Your task to perform on an android device: toggle javascript in the chrome app Image 0: 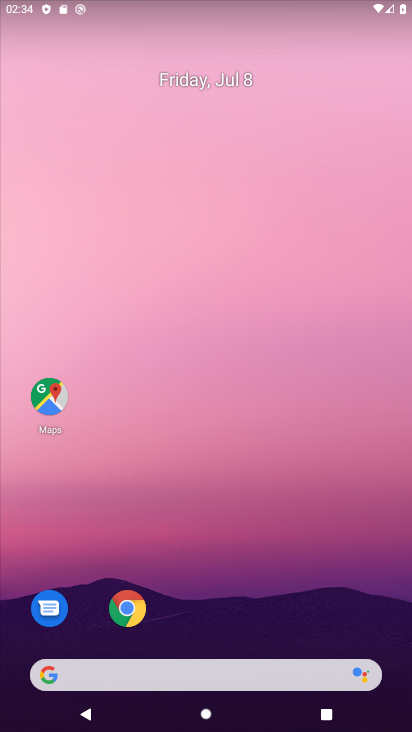
Step 0: drag from (210, 634) to (234, 135)
Your task to perform on an android device: toggle javascript in the chrome app Image 1: 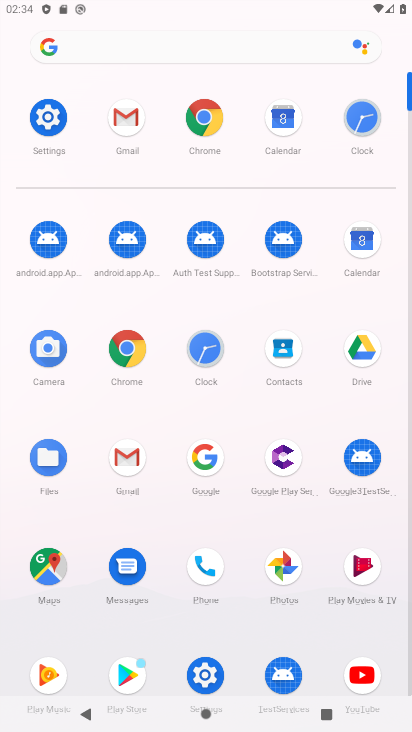
Step 1: click (202, 115)
Your task to perform on an android device: toggle javascript in the chrome app Image 2: 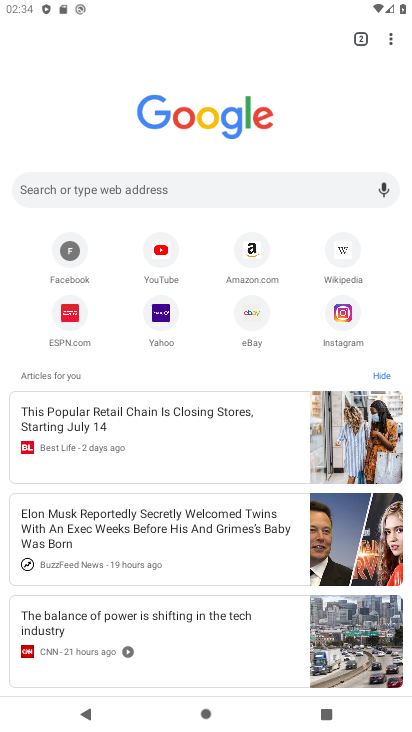
Step 2: click (388, 43)
Your task to perform on an android device: toggle javascript in the chrome app Image 3: 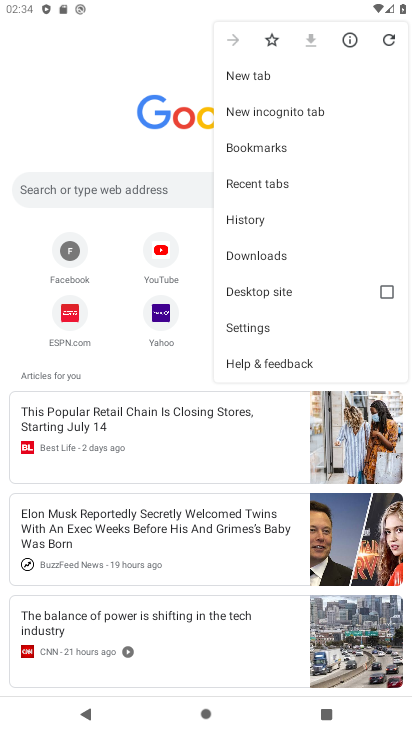
Step 3: click (252, 314)
Your task to perform on an android device: toggle javascript in the chrome app Image 4: 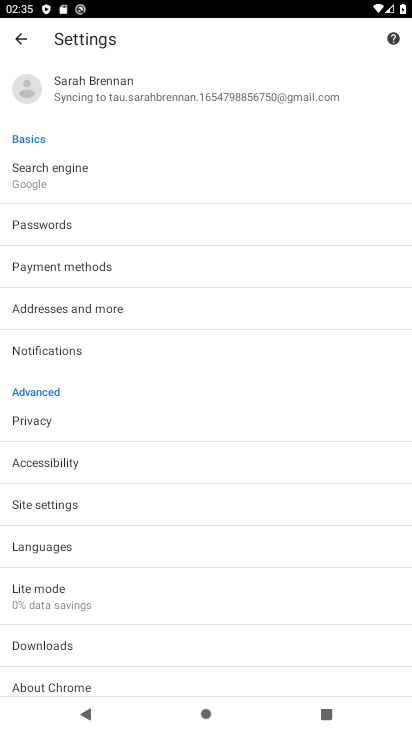
Step 4: click (71, 508)
Your task to perform on an android device: toggle javascript in the chrome app Image 5: 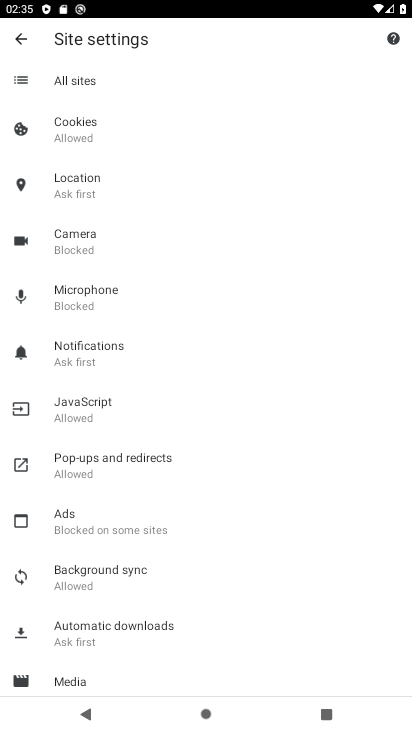
Step 5: click (100, 412)
Your task to perform on an android device: toggle javascript in the chrome app Image 6: 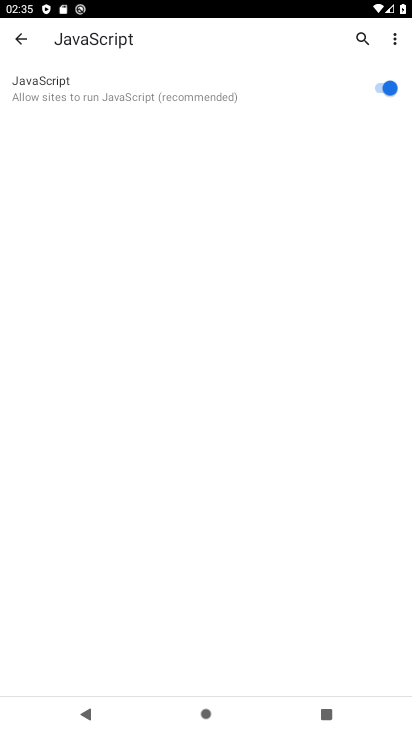
Step 6: click (392, 85)
Your task to perform on an android device: toggle javascript in the chrome app Image 7: 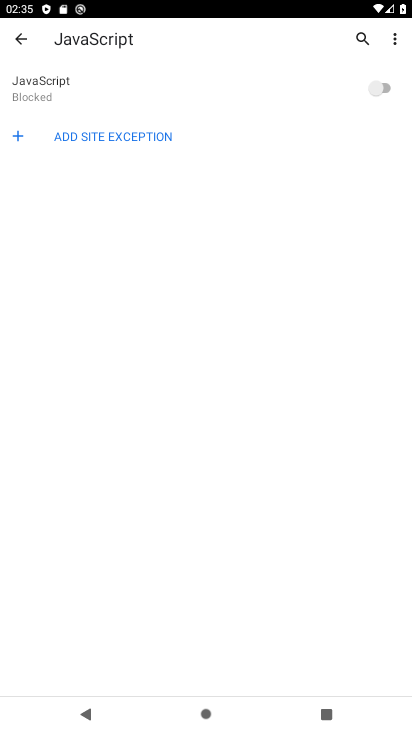
Step 7: task complete